Your task to perform on an android device: When is my next appointment? Image 0: 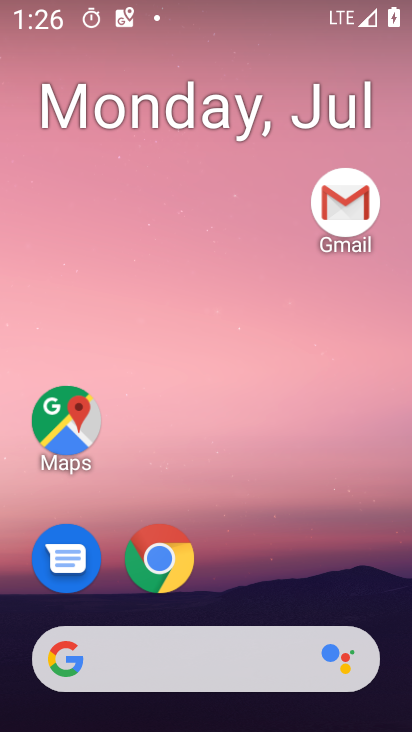
Step 0: drag from (294, 545) to (296, 159)
Your task to perform on an android device: When is my next appointment? Image 1: 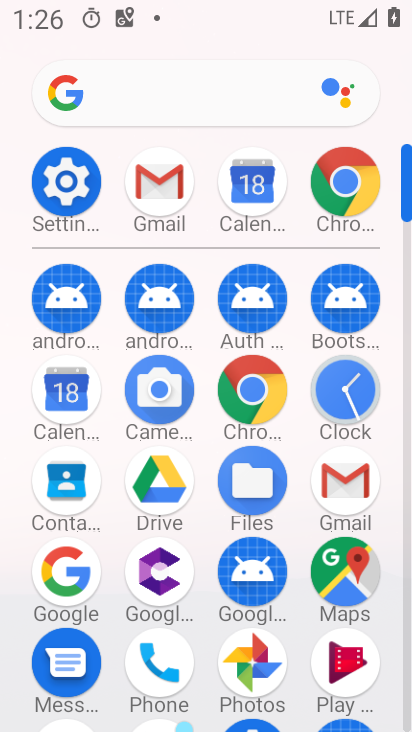
Step 1: click (71, 397)
Your task to perform on an android device: When is my next appointment? Image 2: 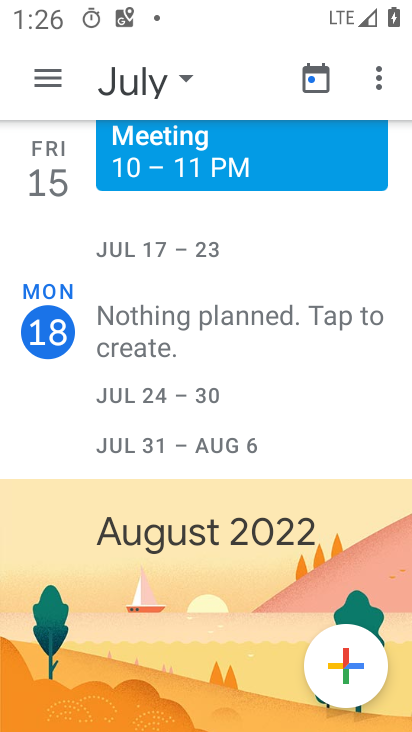
Step 2: click (176, 80)
Your task to perform on an android device: When is my next appointment? Image 3: 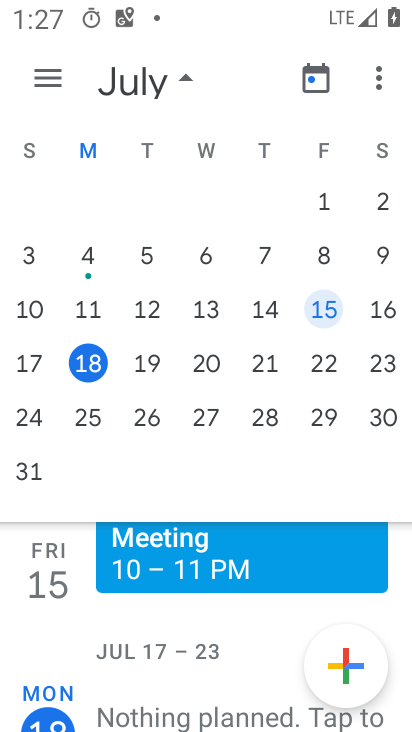
Step 3: task complete